Your task to perform on an android device: open chrome and create a bookmark for the current page Image 0: 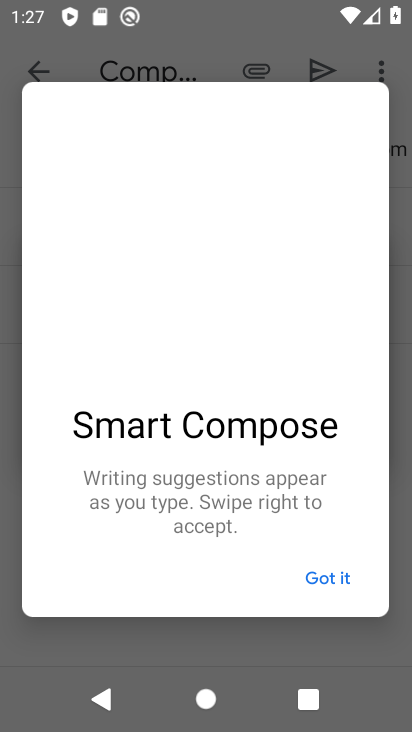
Step 0: press back button
Your task to perform on an android device: open chrome and create a bookmark for the current page Image 1: 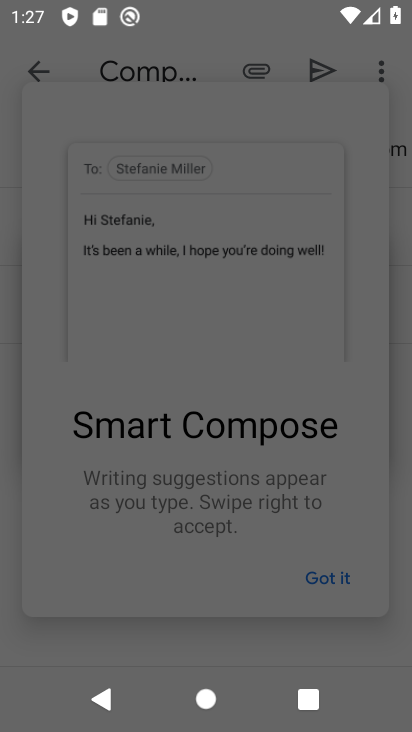
Step 1: press home button
Your task to perform on an android device: open chrome and create a bookmark for the current page Image 2: 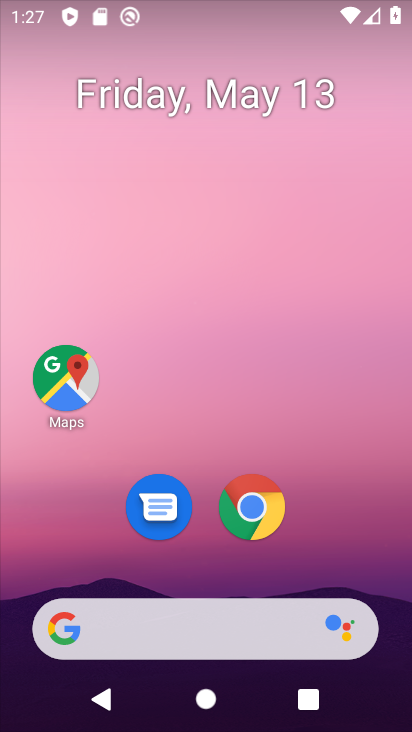
Step 2: click (263, 507)
Your task to perform on an android device: open chrome and create a bookmark for the current page Image 3: 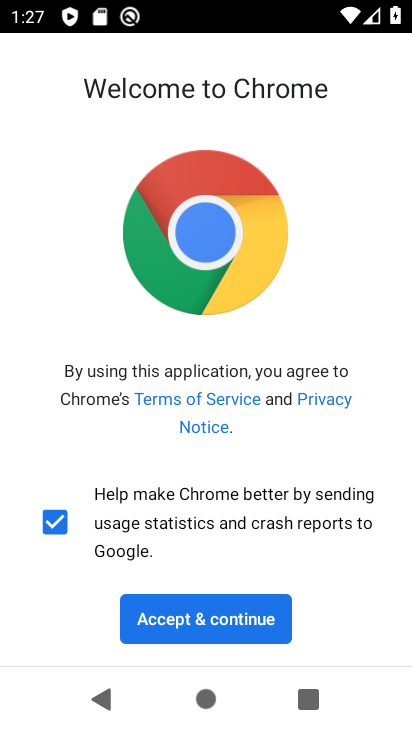
Step 3: click (255, 603)
Your task to perform on an android device: open chrome and create a bookmark for the current page Image 4: 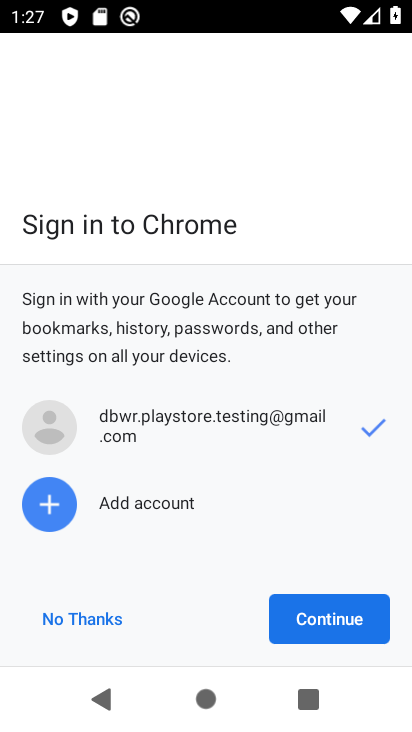
Step 4: click (345, 619)
Your task to perform on an android device: open chrome and create a bookmark for the current page Image 5: 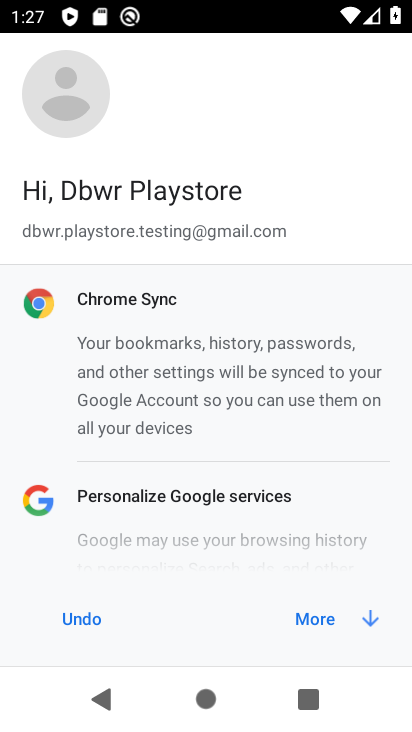
Step 5: click (345, 619)
Your task to perform on an android device: open chrome and create a bookmark for the current page Image 6: 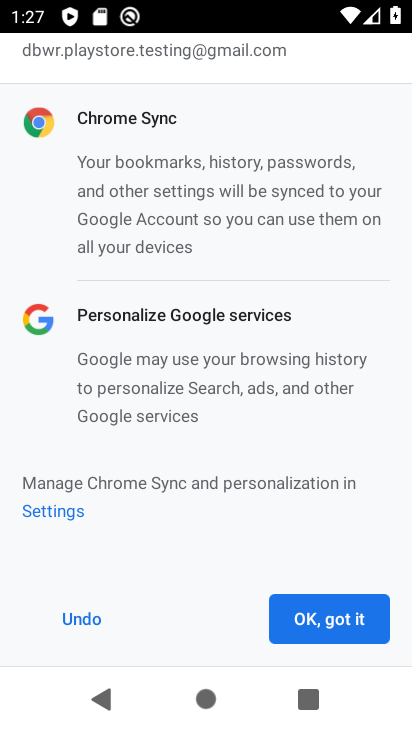
Step 6: click (347, 611)
Your task to perform on an android device: open chrome and create a bookmark for the current page Image 7: 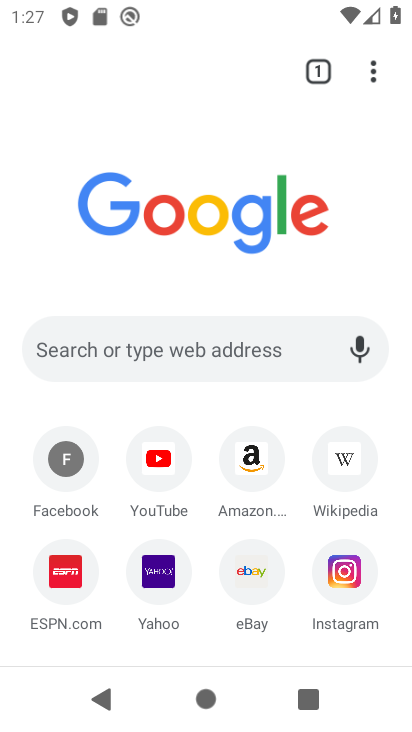
Step 7: task complete